Your task to perform on an android device: allow notifications from all sites in the chrome app Image 0: 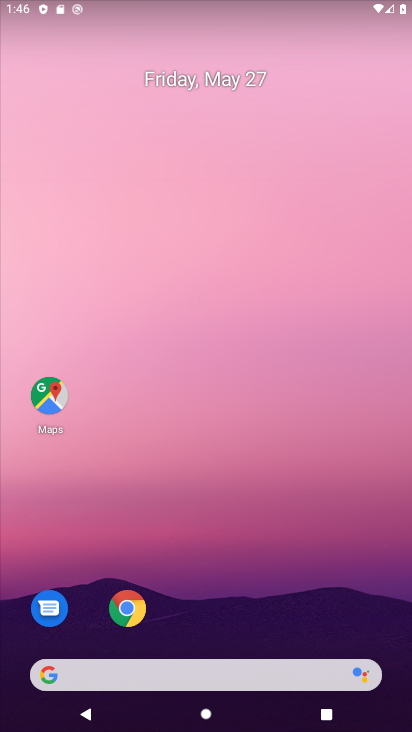
Step 0: click (126, 602)
Your task to perform on an android device: allow notifications from all sites in the chrome app Image 1: 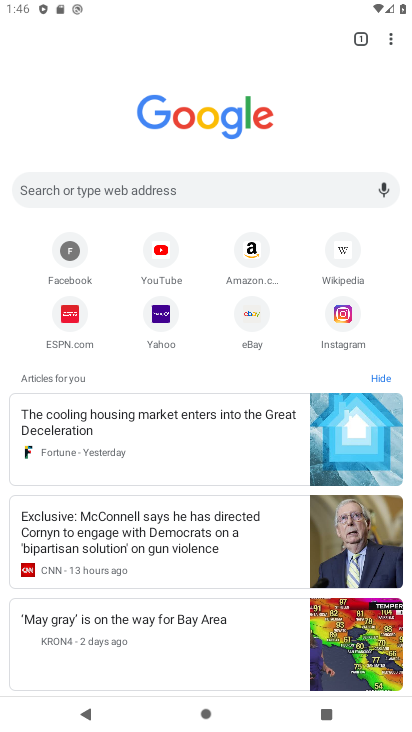
Step 1: click (390, 44)
Your task to perform on an android device: allow notifications from all sites in the chrome app Image 2: 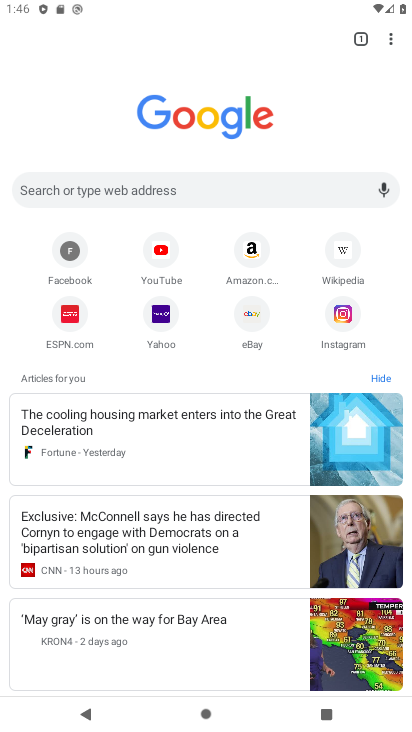
Step 2: drag from (390, 44) to (253, 331)
Your task to perform on an android device: allow notifications from all sites in the chrome app Image 3: 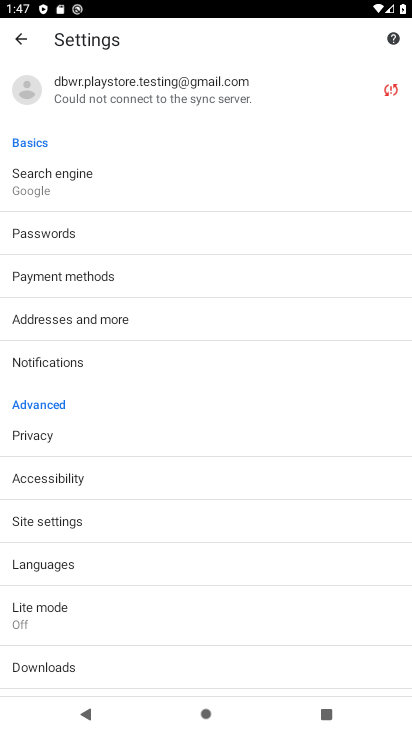
Step 3: click (63, 517)
Your task to perform on an android device: allow notifications from all sites in the chrome app Image 4: 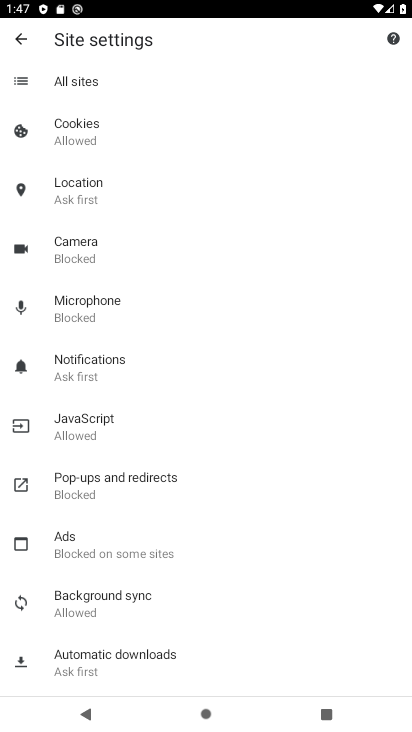
Step 4: click (81, 366)
Your task to perform on an android device: allow notifications from all sites in the chrome app Image 5: 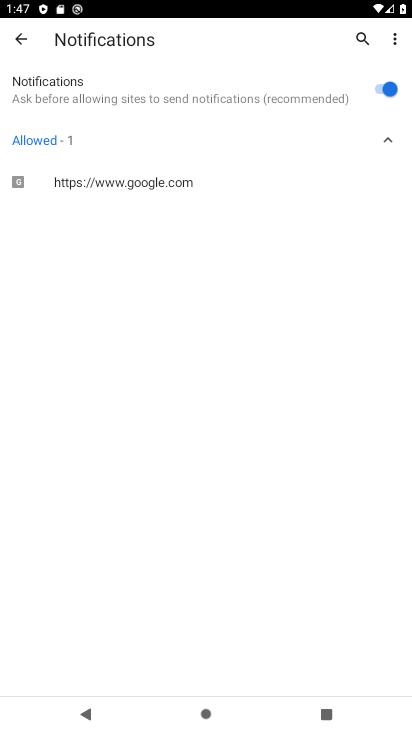
Step 5: task complete